Your task to perform on an android device: find photos in the google photos app Image 0: 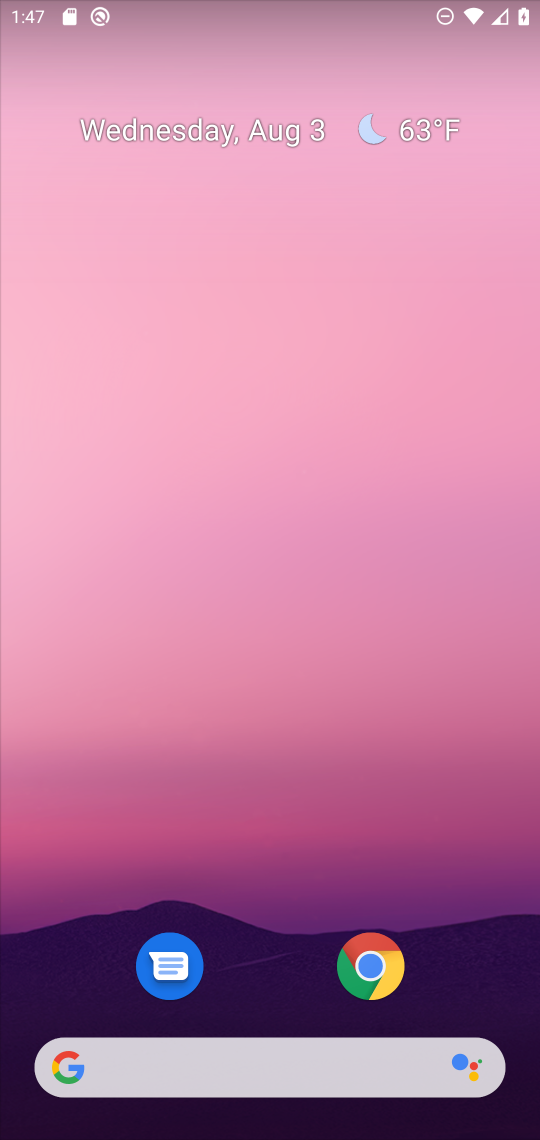
Step 0: drag from (277, 971) to (313, 310)
Your task to perform on an android device: find photos in the google photos app Image 1: 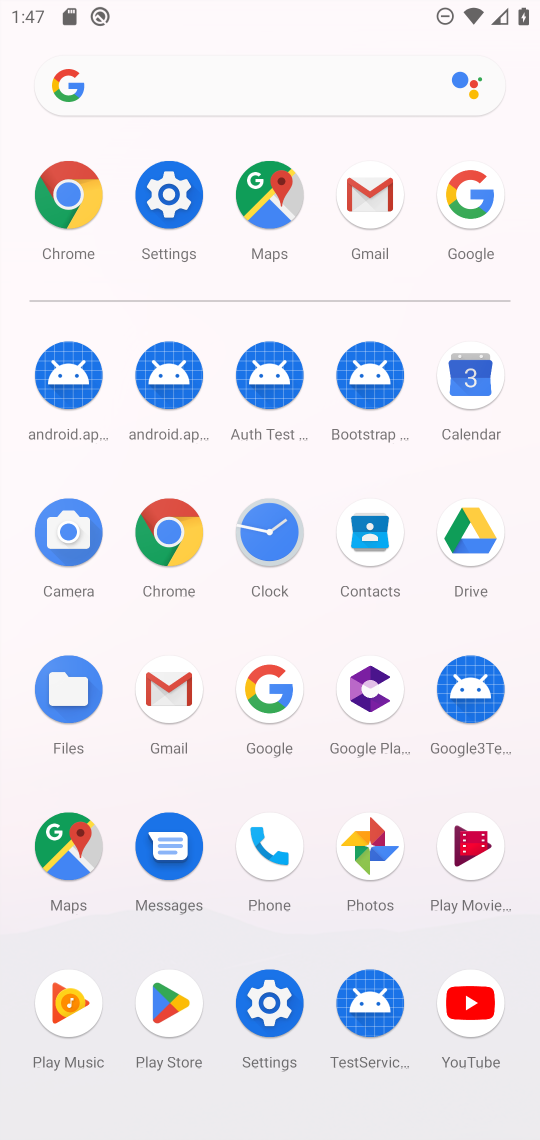
Step 1: click (383, 844)
Your task to perform on an android device: find photos in the google photos app Image 2: 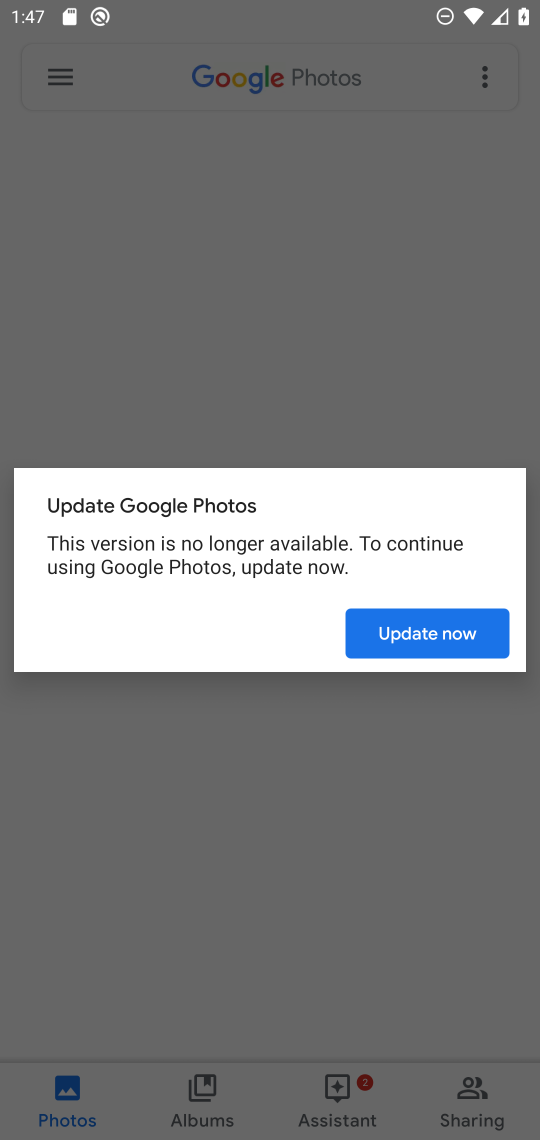
Step 2: click (425, 621)
Your task to perform on an android device: find photos in the google photos app Image 3: 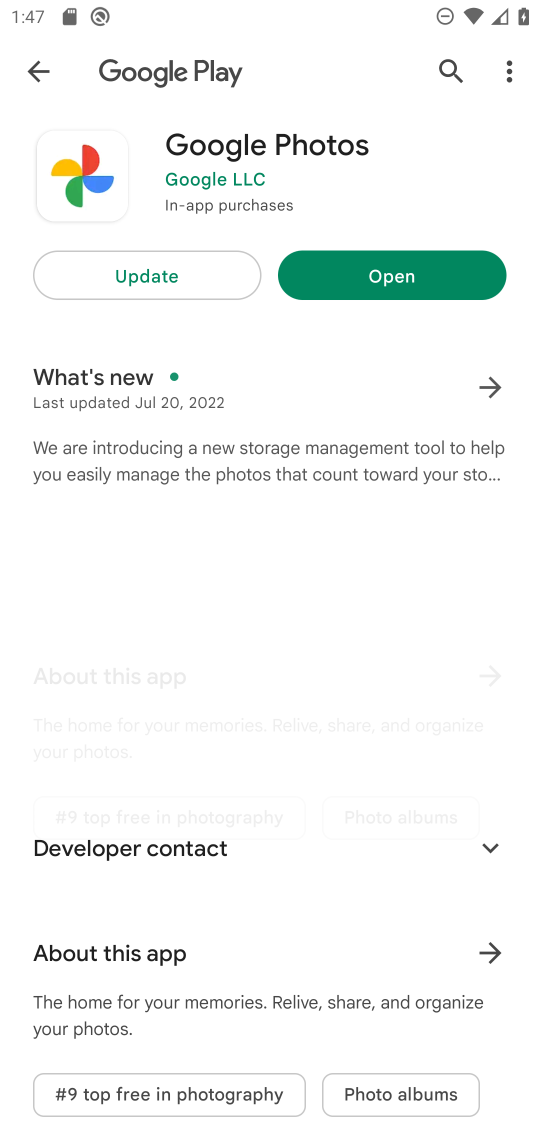
Step 3: click (296, 273)
Your task to perform on an android device: find photos in the google photos app Image 4: 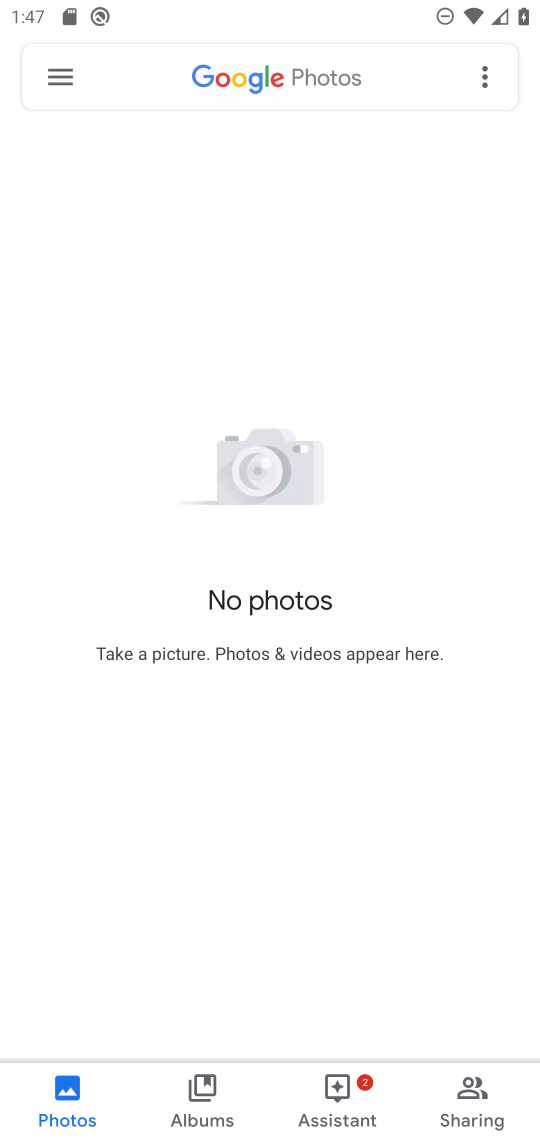
Step 4: click (238, 61)
Your task to perform on an android device: find photos in the google photos app Image 5: 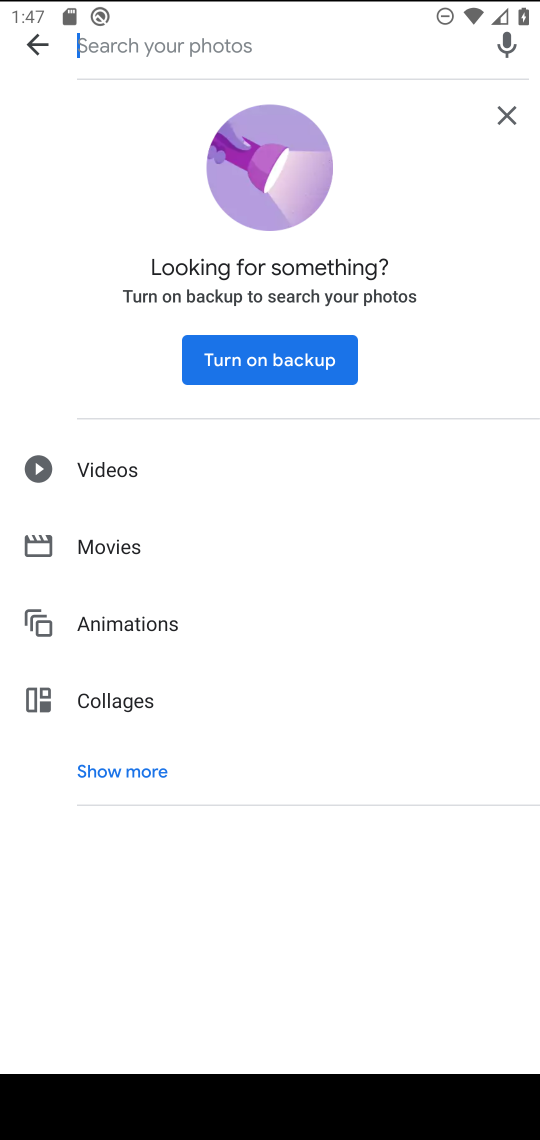
Step 5: type "aa"
Your task to perform on an android device: find photos in the google photos app Image 6: 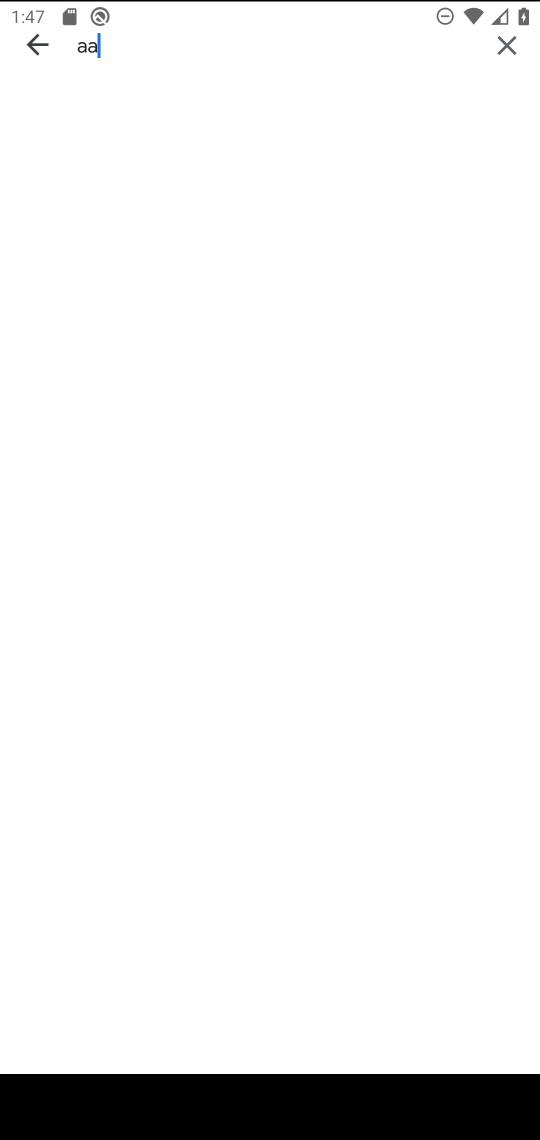
Step 6: type ""
Your task to perform on an android device: find photos in the google photos app Image 7: 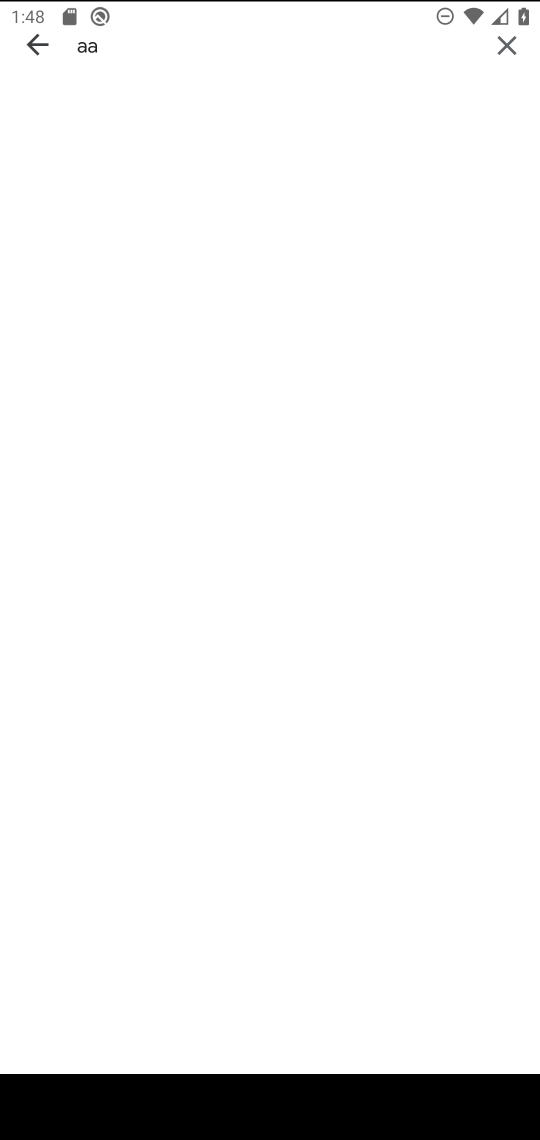
Step 7: task complete